Your task to perform on an android device: Go to location settings Image 0: 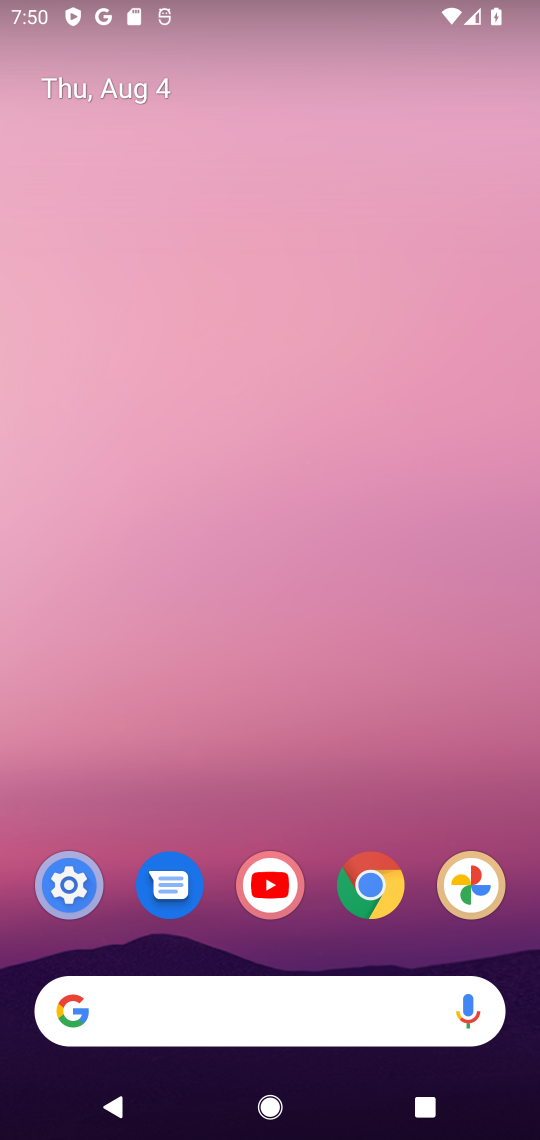
Step 0: drag from (326, 931) to (390, 23)
Your task to perform on an android device: Go to location settings Image 1: 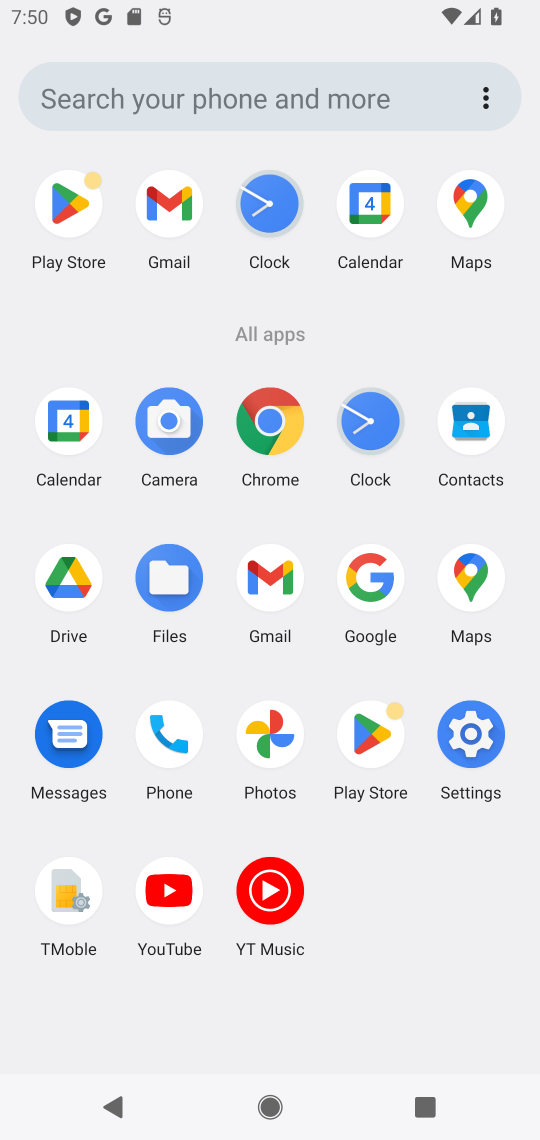
Step 1: click (464, 729)
Your task to perform on an android device: Go to location settings Image 2: 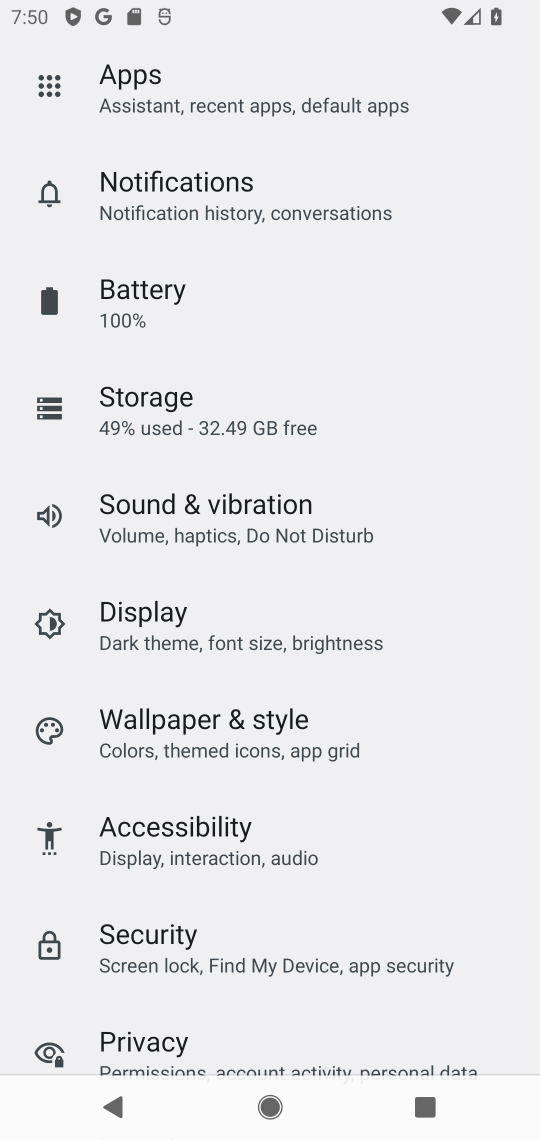
Step 2: drag from (232, 987) to (291, 175)
Your task to perform on an android device: Go to location settings Image 3: 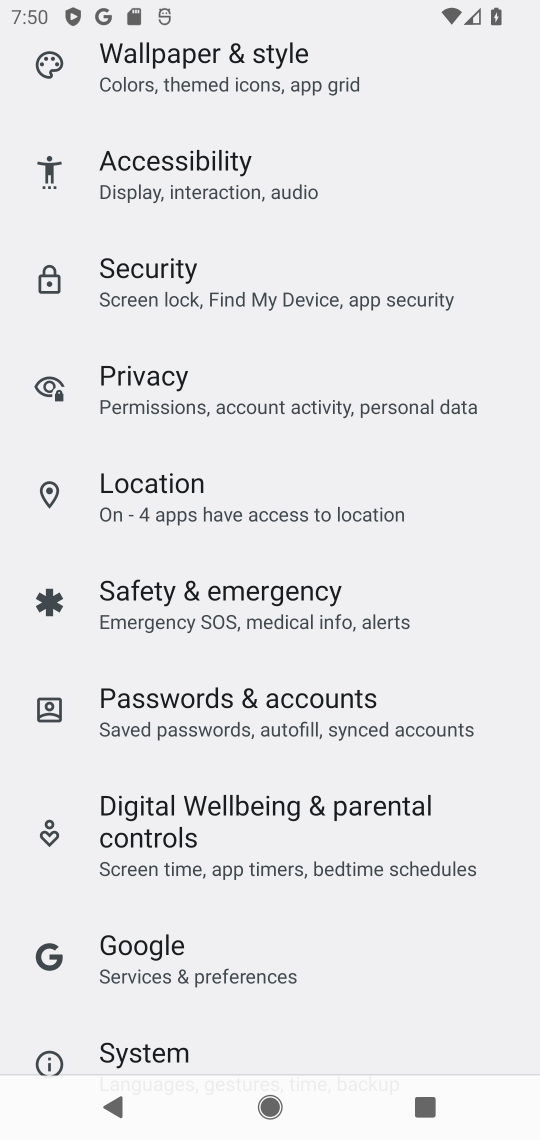
Step 3: click (235, 478)
Your task to perform on an android device: Go to location settings Image 4: 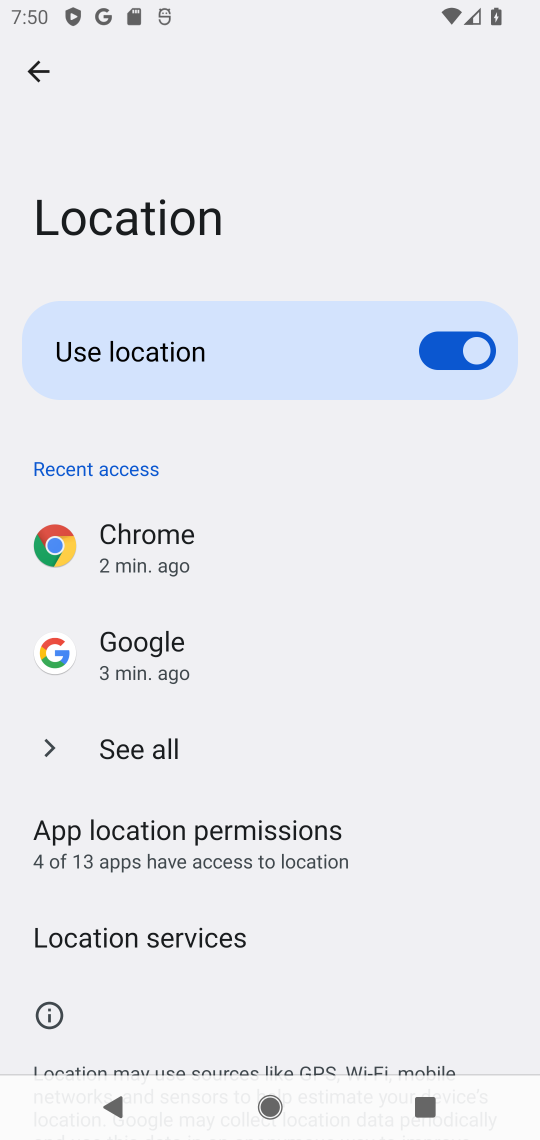
Step 4: click (231, 940)
Your task to perform on an android device: Go to location settings Image 5: 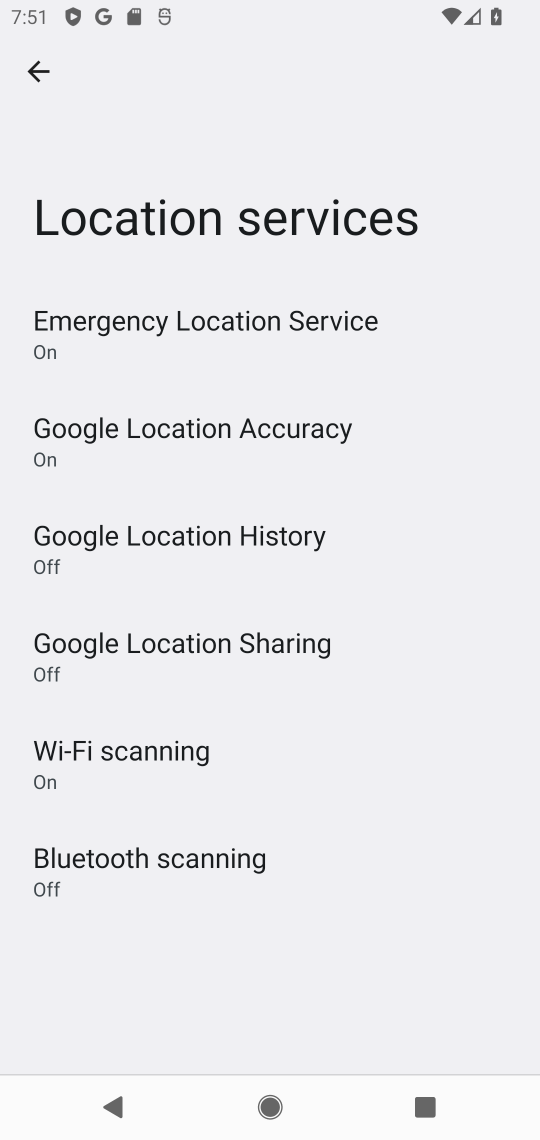
Step 5: task complete